Your task to perform on an android device: check storage Image 0: 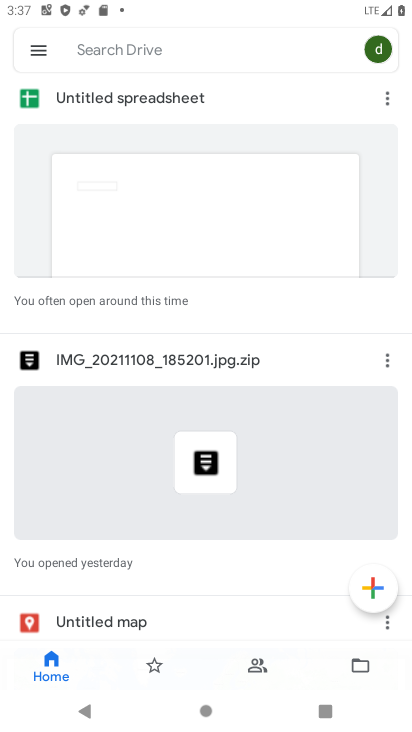
Step 0: press home button
Your task to perform on an android device: check storage Image 1: 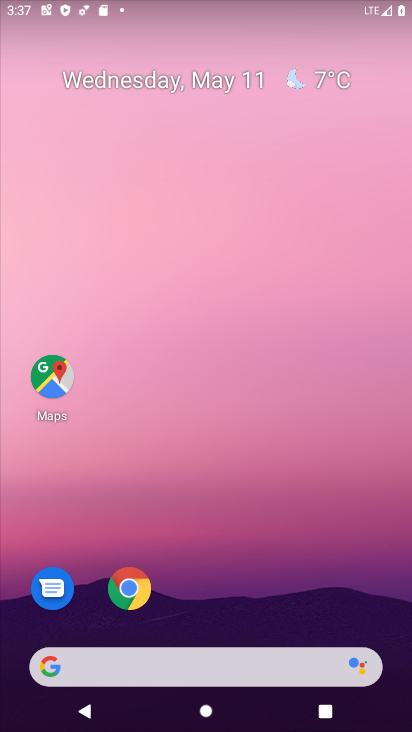
Step 1: drag from (221, 624) to (220, 241)
Your task to perform on an android device: check storage Image 2: 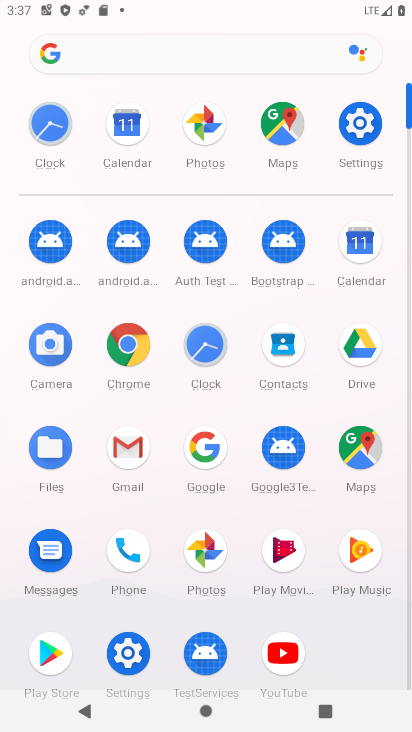
Step 2: click (364, 118)
Your task to perform on an android device: check storage Image 3: 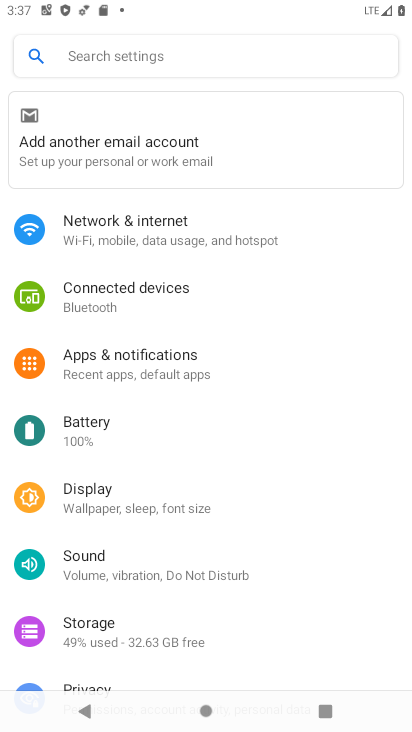
Step 3: click (93, 632)
Your task to perform on an android device: check storage Image 4: 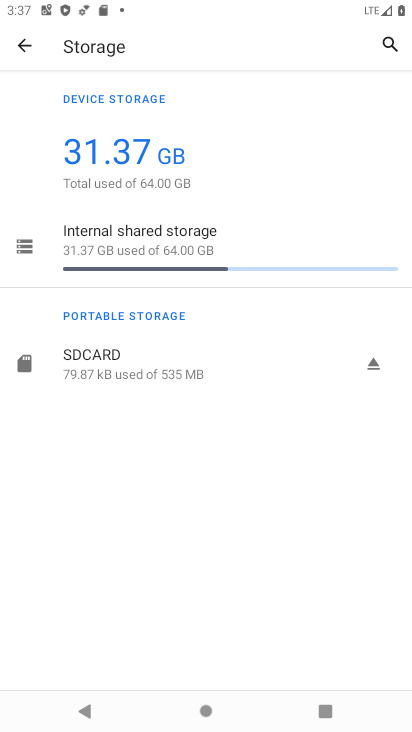
Step 4: task complete